Your task to perform on an android device: Go to Amazon Image 0: 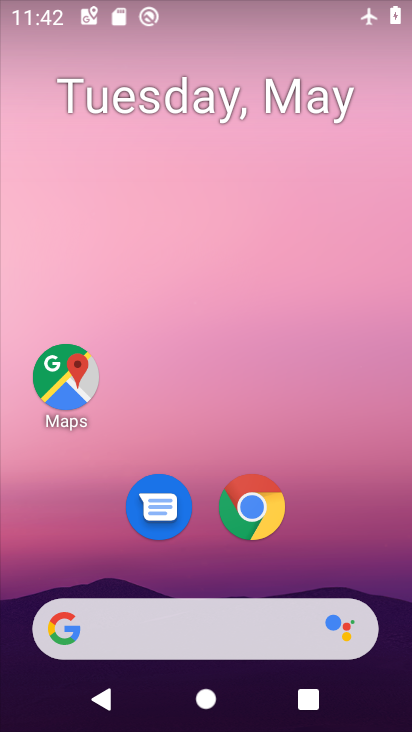
Step 0: drag from (228, 682) to (233, 61)
Your task to perform on an android device: Go to Amazon Image 1: 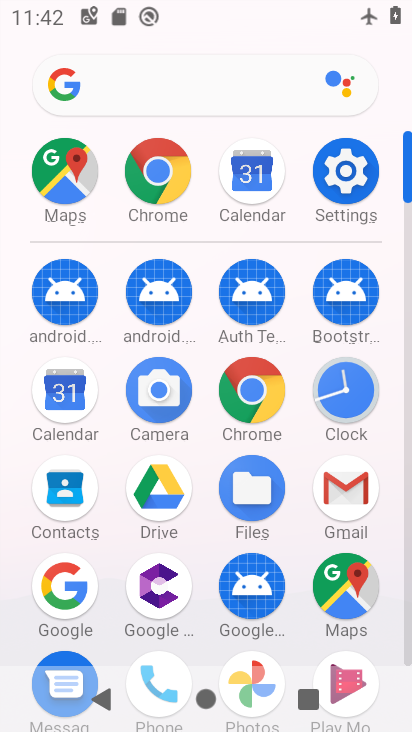
Step 1: click (158, 183)
Your task to perform on an android device: Go to Amazon Image 2: 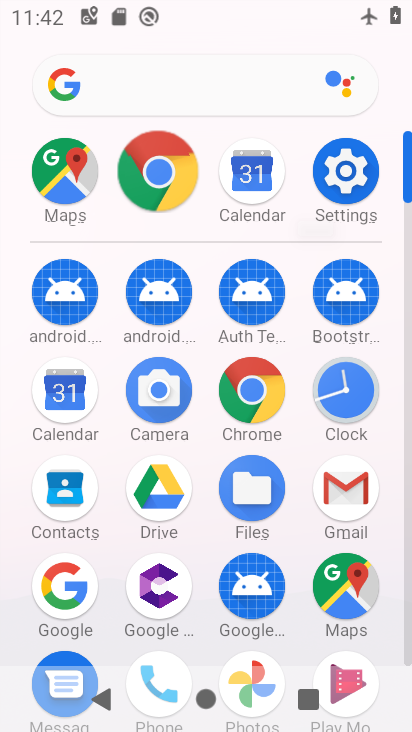
Step 2: click (157, 182)
Your task to perform on an android device: Go to Amazon Image 3: 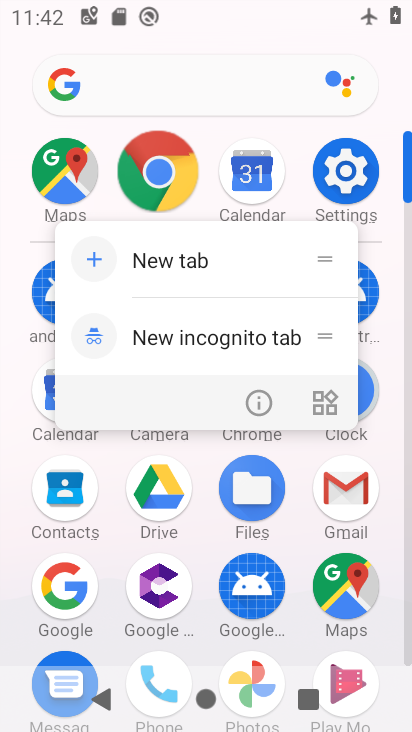
Step 3: click (158, 178)
Your task to perform on an android device: Go to Amazon Image 4: 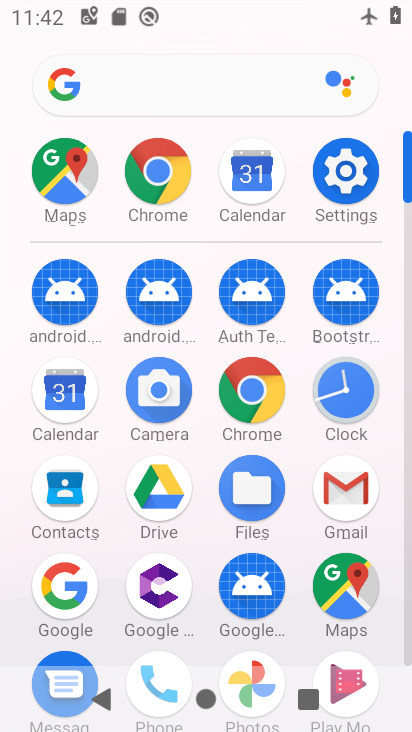
Step 4: click (159, 178)
Your task to perform on an android device: Go to Amazon Image 5: 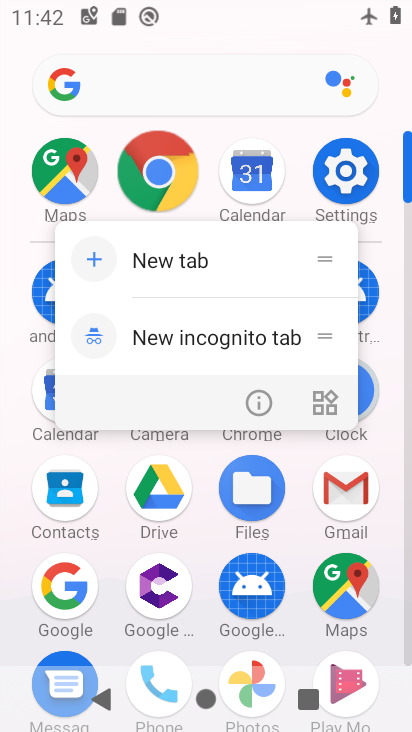
Step 5: click (167, 170)
Your task to perform on an android device: Go to Amazon Image 6: 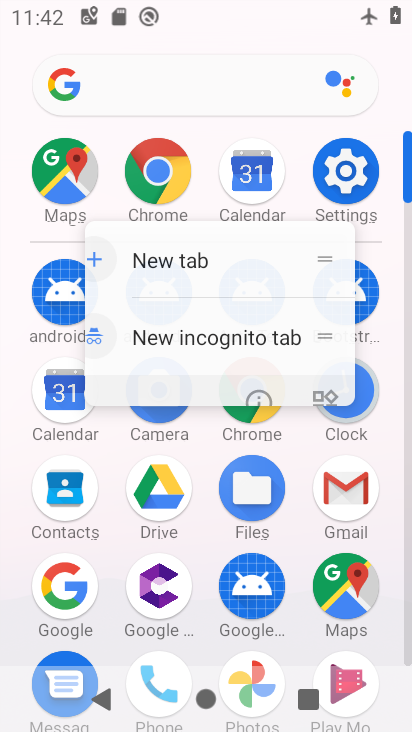
Step 6: click (167, 170)
Your task to perform on an android device: Go to Amazon Image 7: 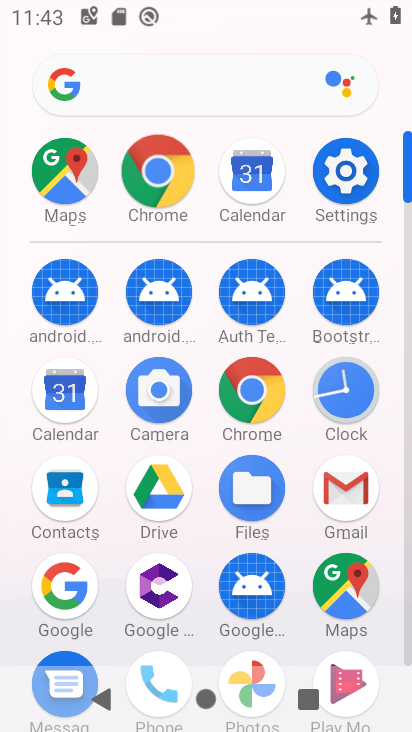
Step 7: click (165, 169)
Your task to perform on an android device: Go to Amazon Image 8: 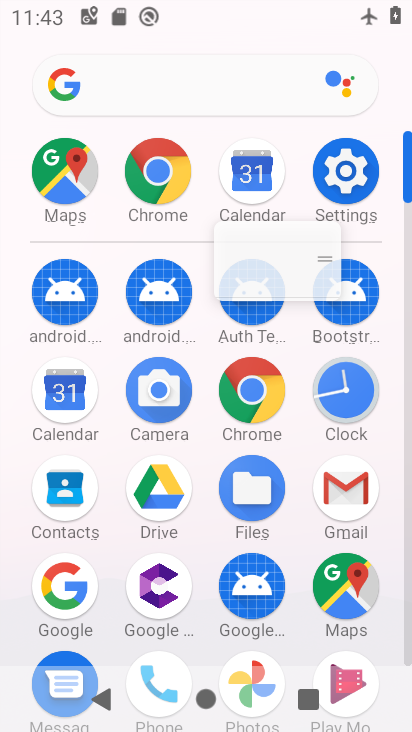
Step 8: click (163, 167)
Your task to perform on an android device: Go to Amazon Image 9: 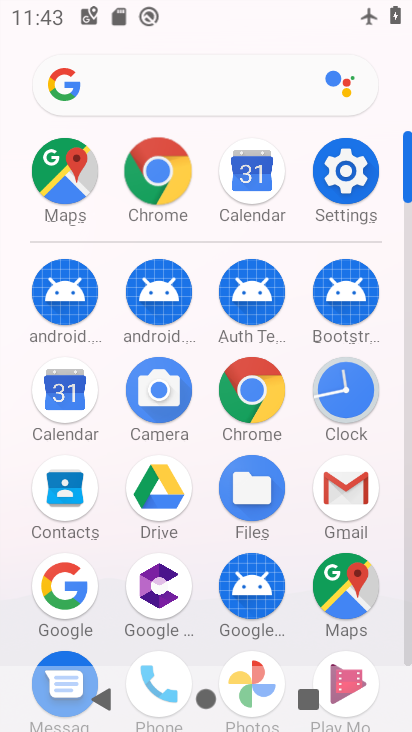
Step 9: click (157, 176)
Your task to perform on an android device: Go to Amazon Image 10: 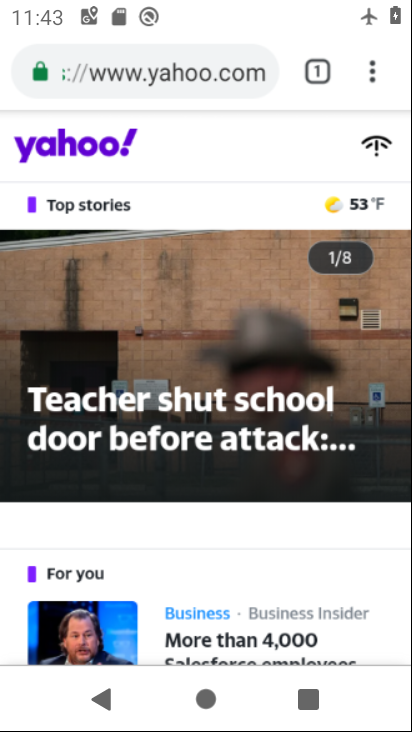
Step 10: click (162, 179)
Your task to perform on an android device: Go to Amazon Image 11: 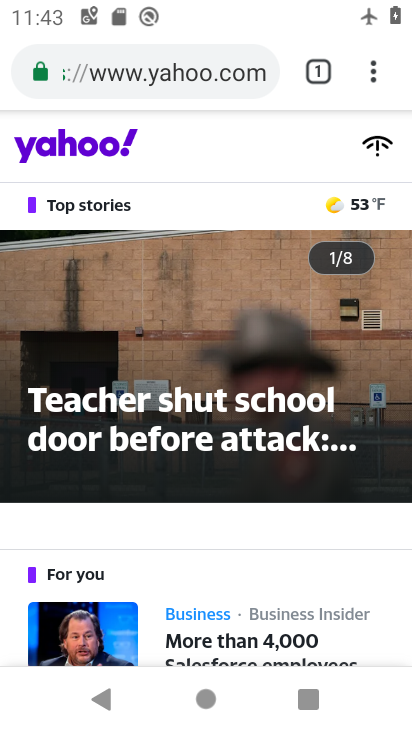
Step 11: drag from (369, 72) to (102, 140)
Your task to perform on an android device: Go to Amazon Image 12: 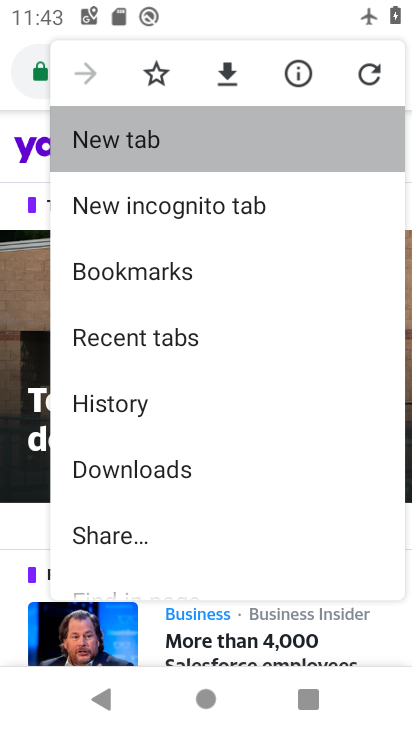
Step 12: click (110, 140)
Your task to perform on an android device: Go to Amazon Image 13: 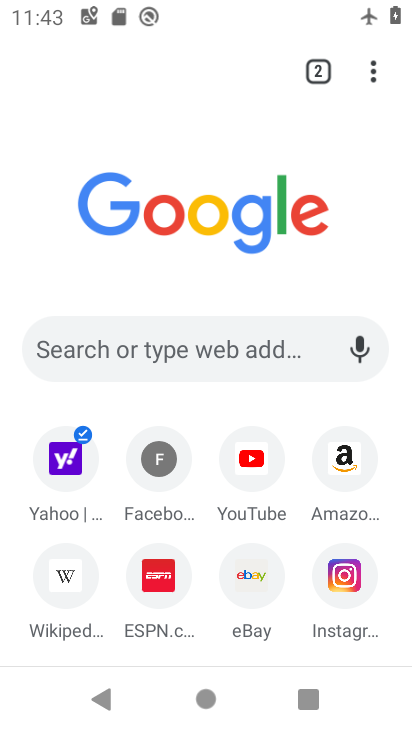
Step 13: click (345, 465)
Your task to perform on an android device: Go to Amazon Image 14: 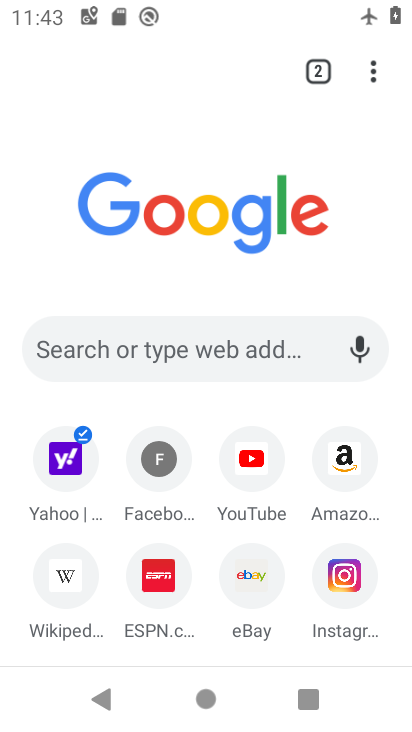
Step 14: click (345, 465)
Your task to perform on an android device: Go to Amazon Image 15: 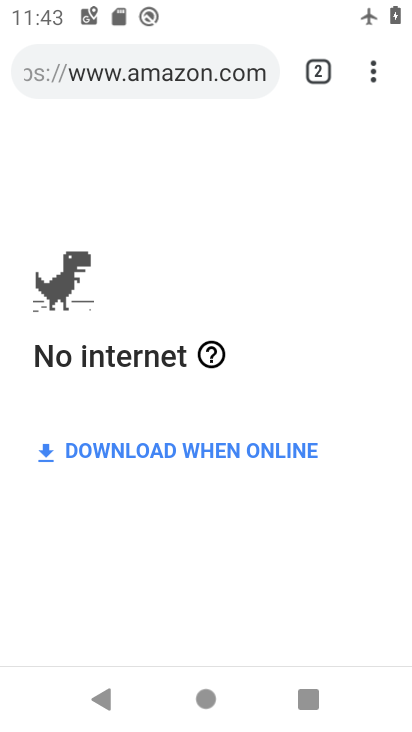
Step 15: task complete